Your task to perform on an android device: Open ESPN.com Image 0: 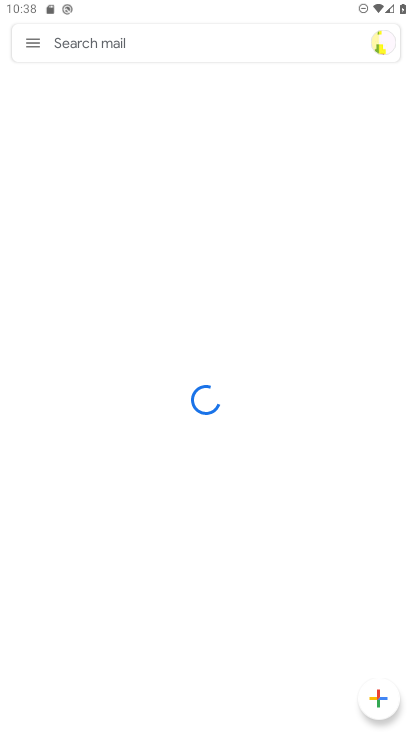
Step 0: press back button
Your task to perform on an android device: Open ESPN.com Image 1: 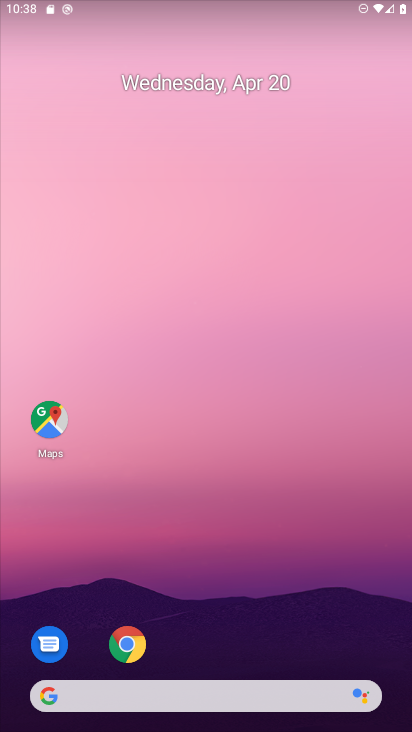
Step 1: drag from (304, 628) to (282, 38)
Your task to perform on an android device: Open ESPN.com Image 2: 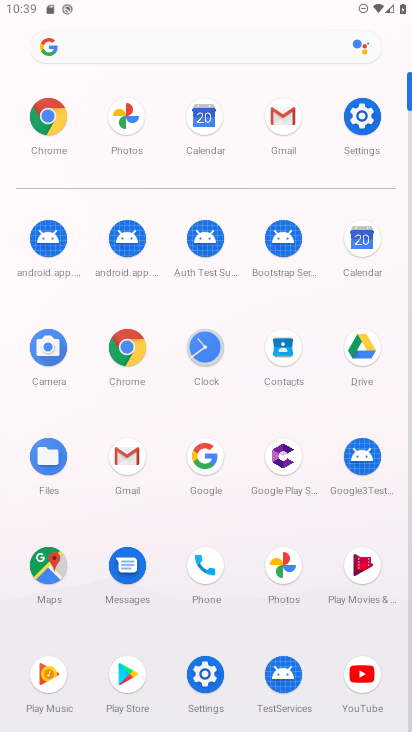
Step 2: click (126, 371)
Your task to perform on an android device: Open ESPN.com Image 3: 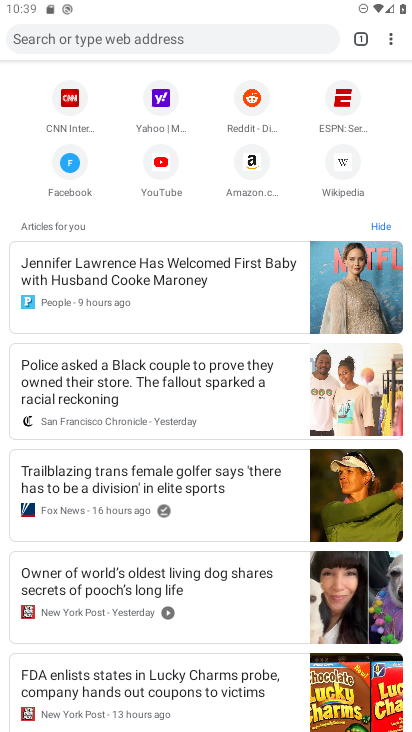
Step 3: click (333, 99)
Your task to perform on an android device: Open ESPN.com Image 4: 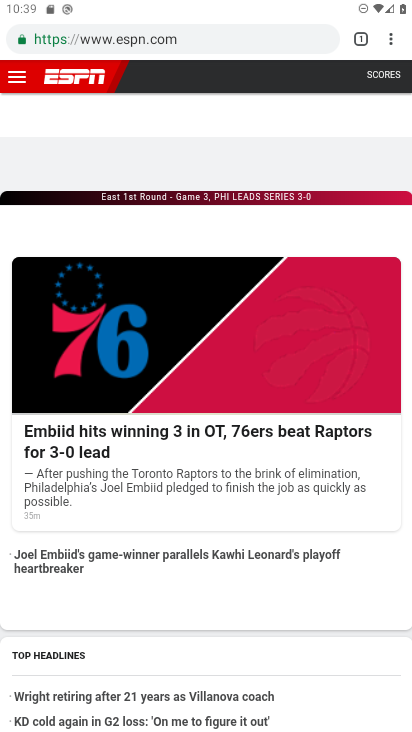
Step 4: task complete